Your task to perform on an android device: open app "Truecaller" (install if not already installed) Image 0: 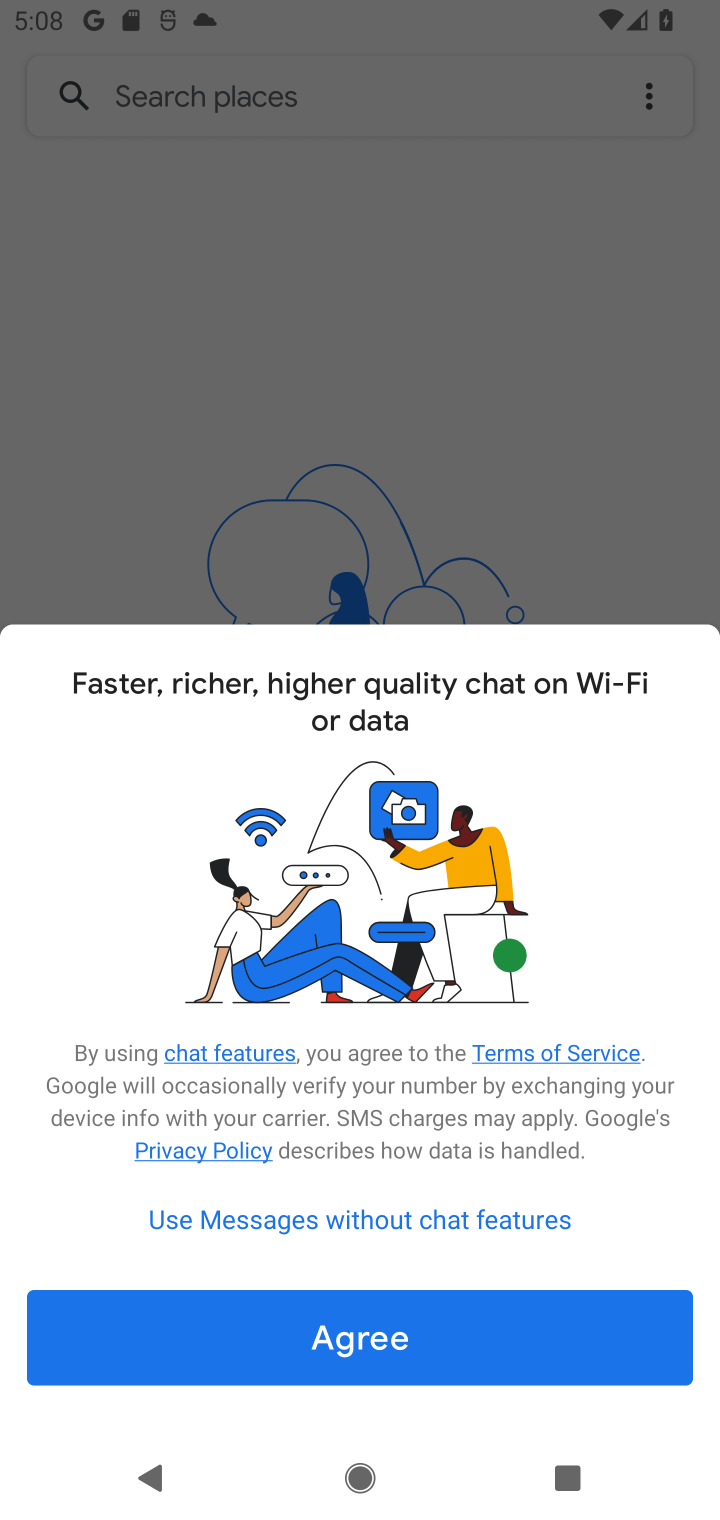
Step 0: press home button
Your task to perform on an android device: open app "Truecaller" (install if not already installed) Image 1: 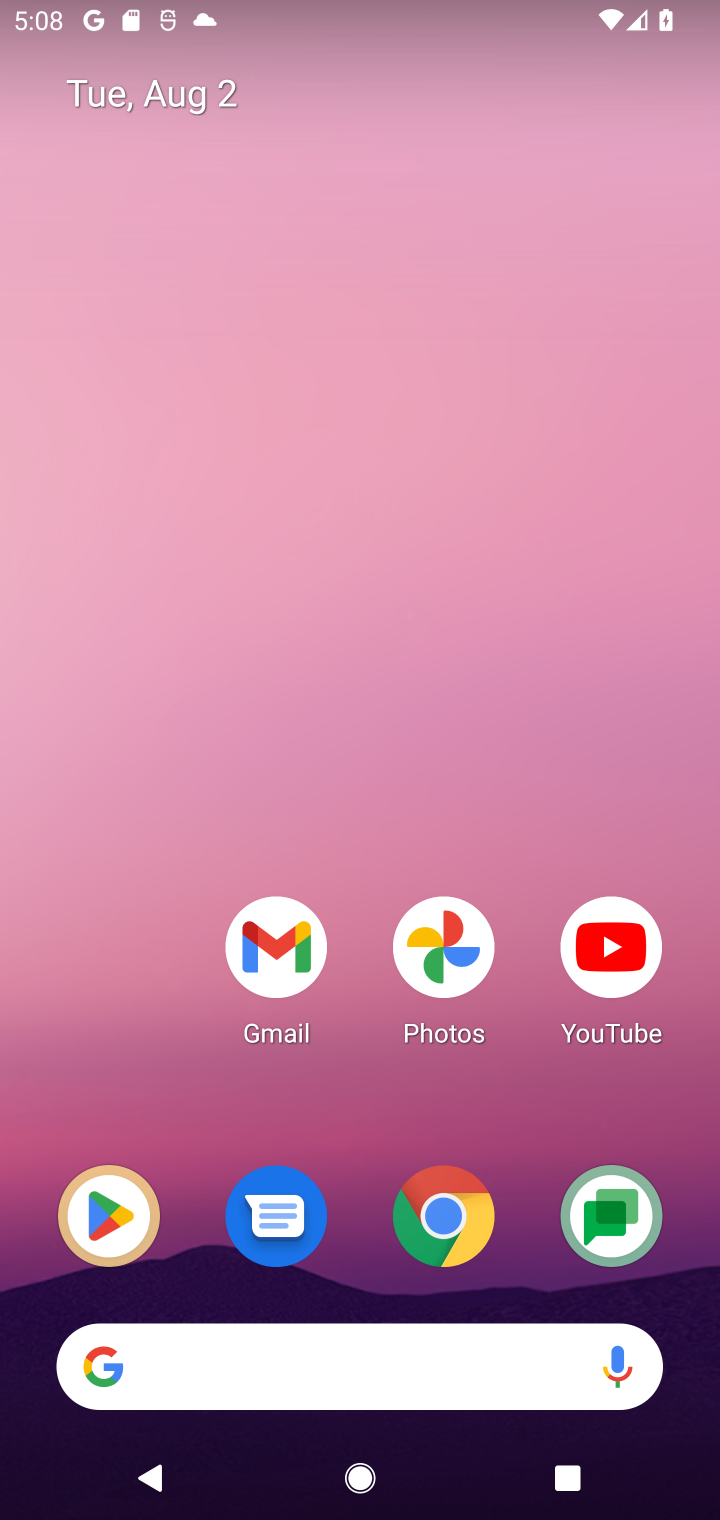
Step 1: click (145, 1226)
Your task to perform on an android device: open app "Truecaller" (install if not already installed) Image 2: 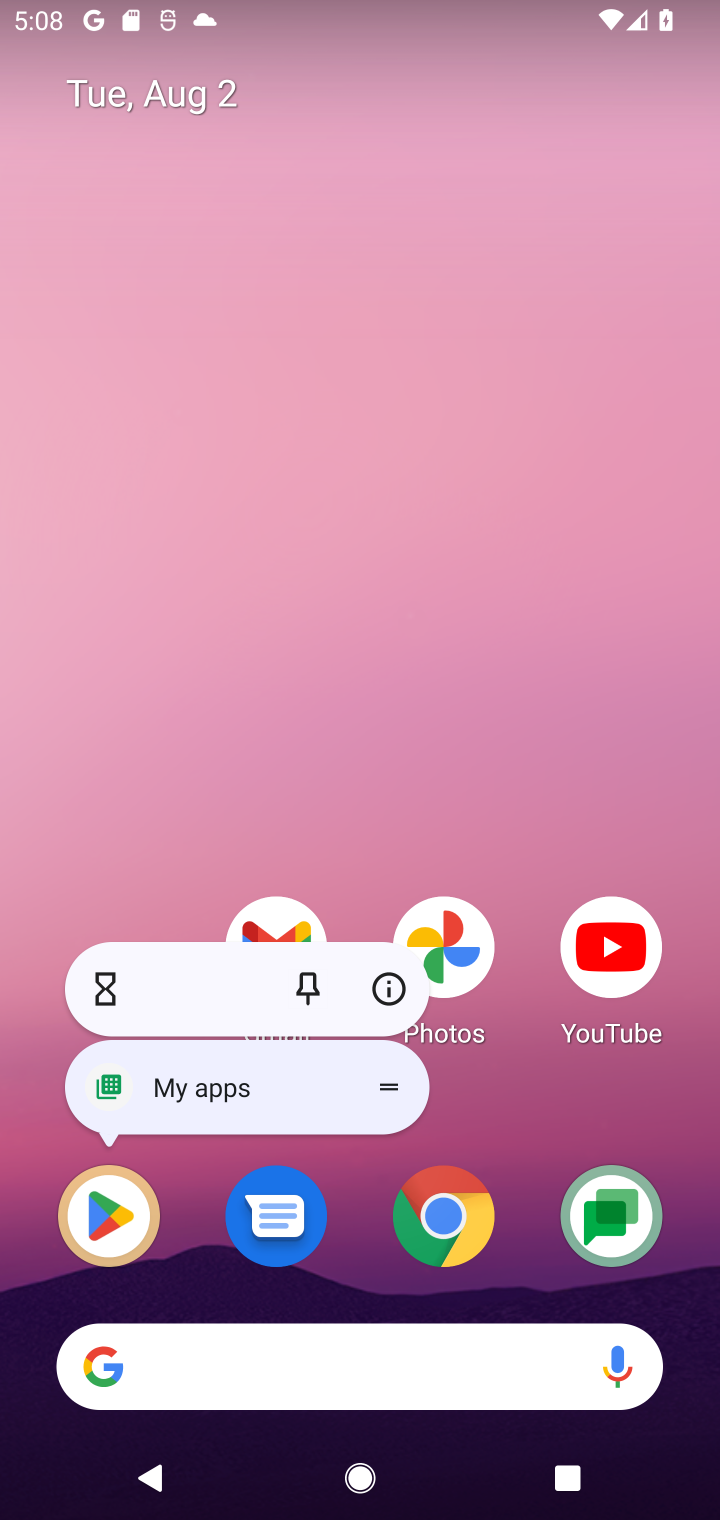
Step 2: click (304, 632)
Your task to perform on an android device: open app "Truecaller" (install if not already installed) Image 3: 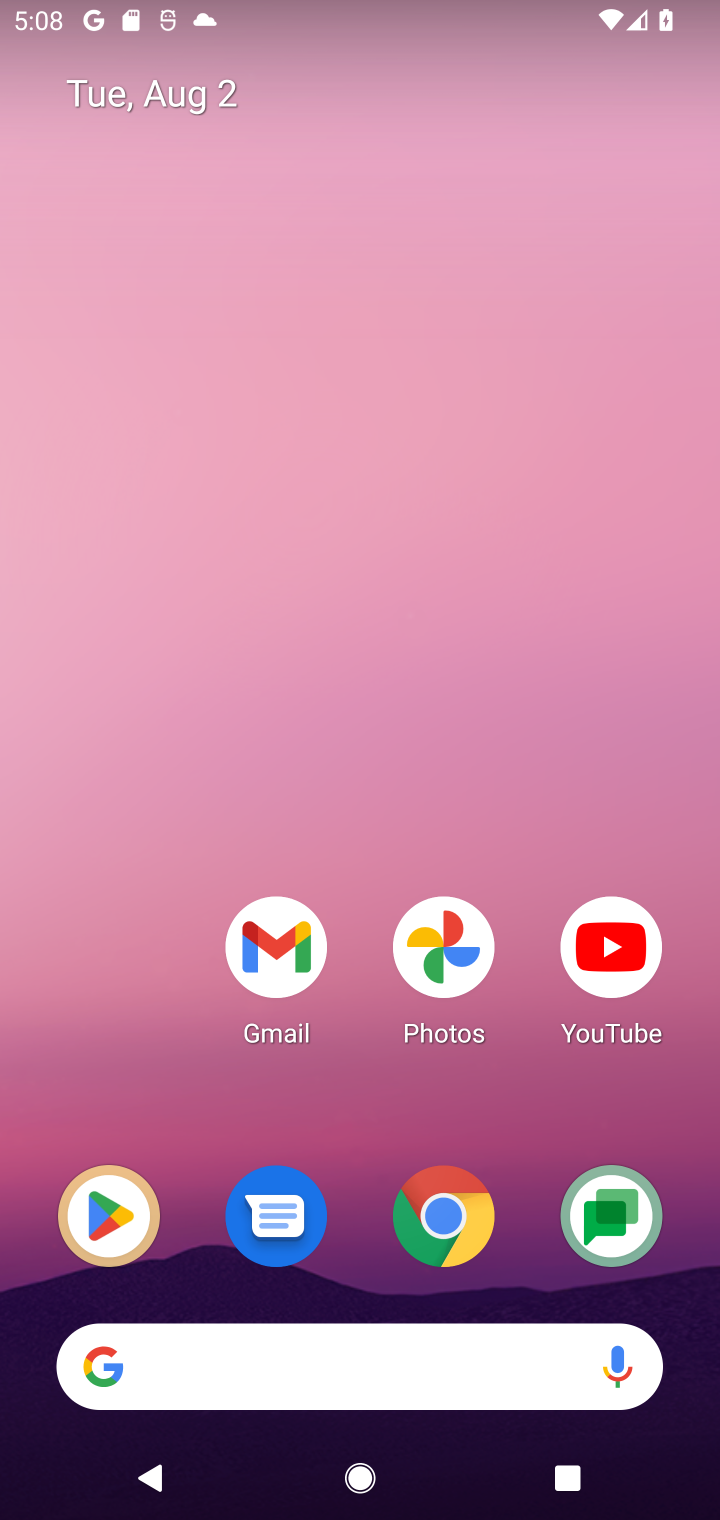
Step 3: click (91, 1217)
Your task to perform on an android device: open app "Truecaller" (install if not already installed) Image 4: 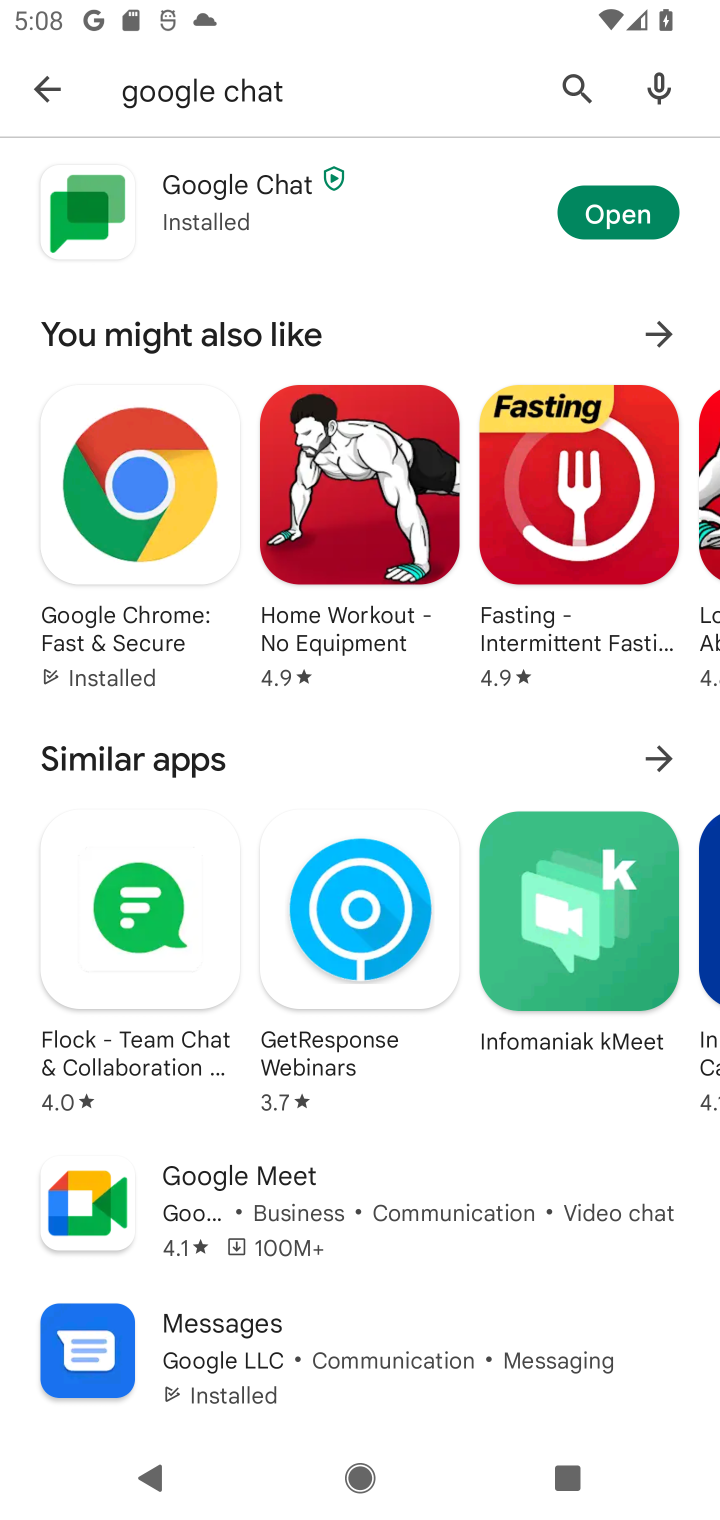
Step 4: click (559, 89)
Your task to perform on an android device: open app "Truecaller" (install if not already installed) Image 5: 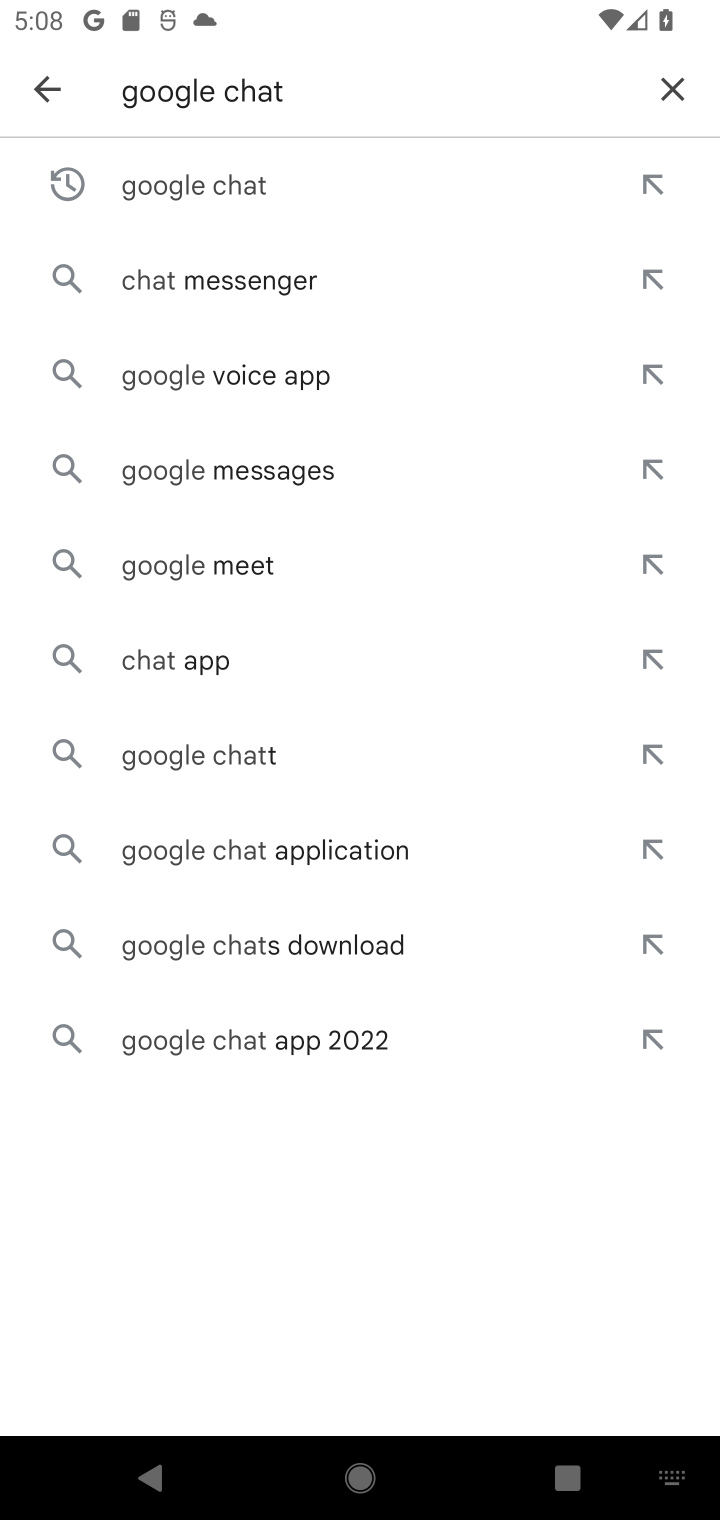
Step 5: click (674, 95)
Your task to perform on an android device: open app "Truecaller" (install if not already installed) Image 6: 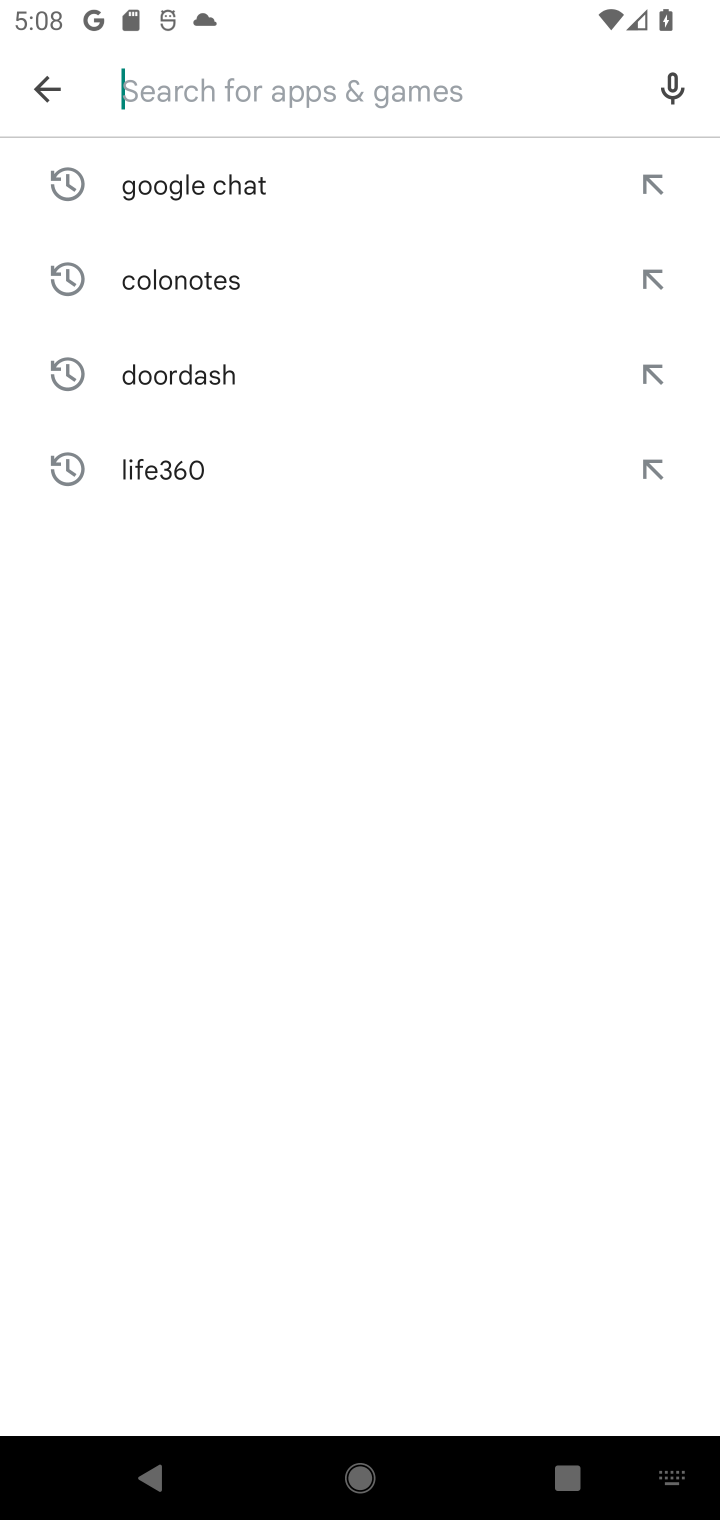
Step 6: type "truecaller"
Your task to perform on an android device: open app "Truecaller" (install if not already installed) Image 7: 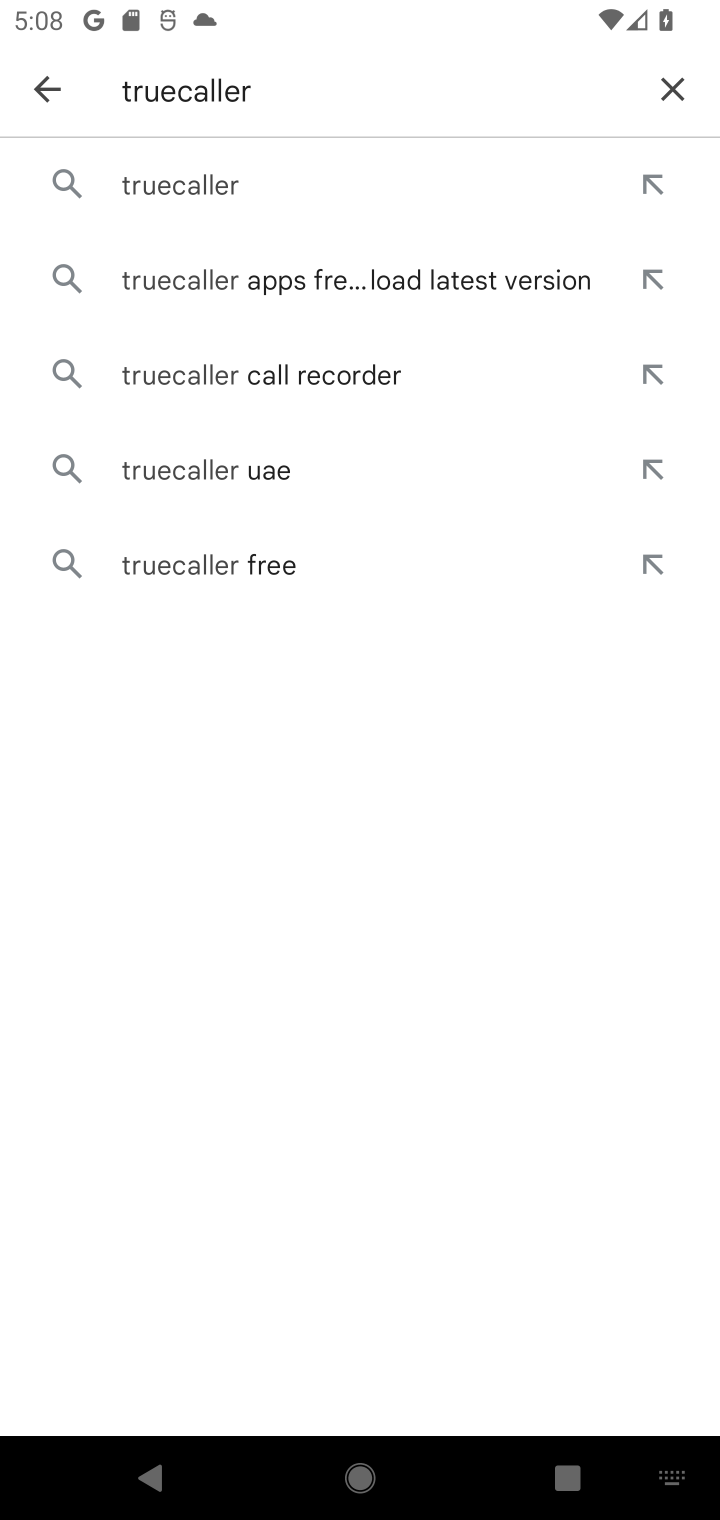
Step 7: click (325, 168)
Your task to perform on an android device: open app "Truecaller" (install if not already installed) Image 8: 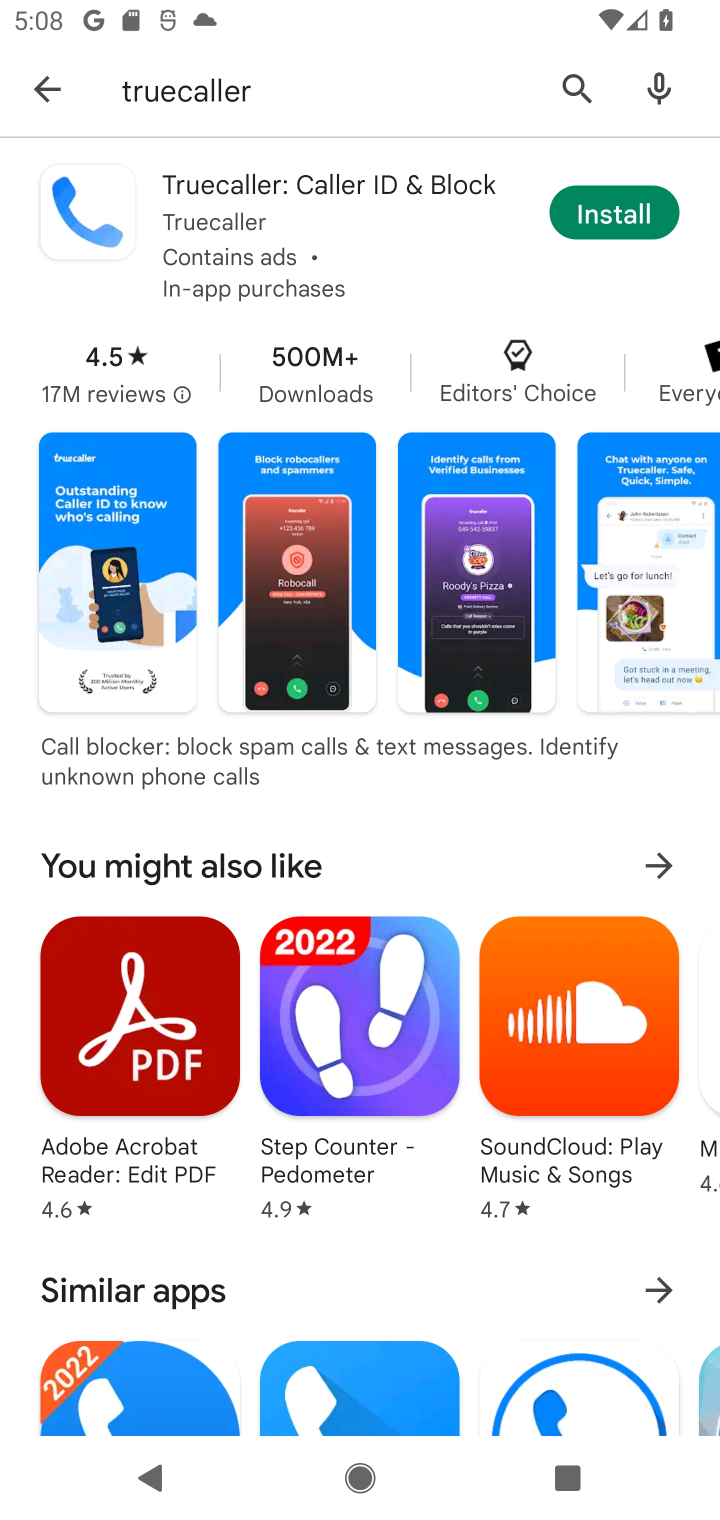
Step 8: click (629, 210)
Your task to perform on an android device: open app "Truecaller" (install if not already installed) Image 9: 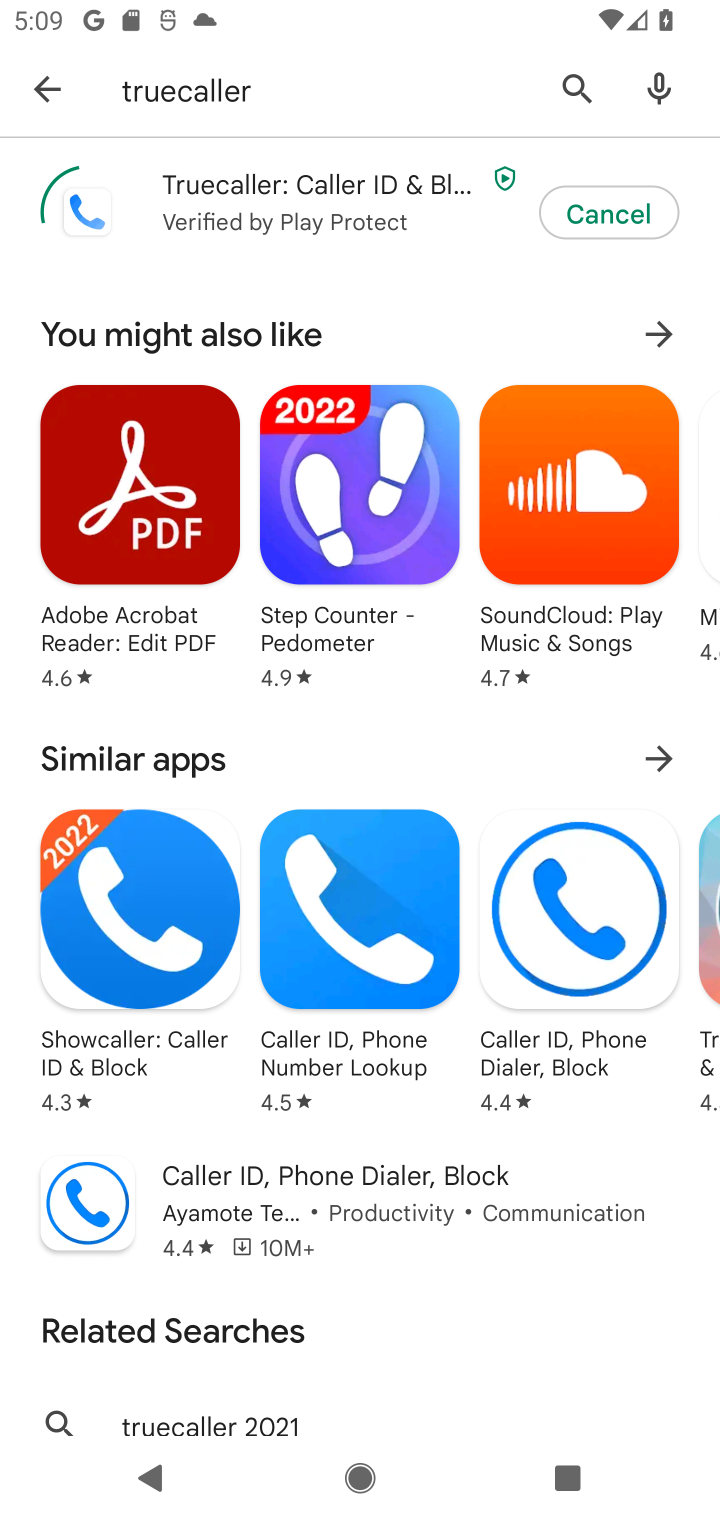
Step 9: task complete